Your task to perform on an android device: remove spam from my inbox in the gmail app Image 0: 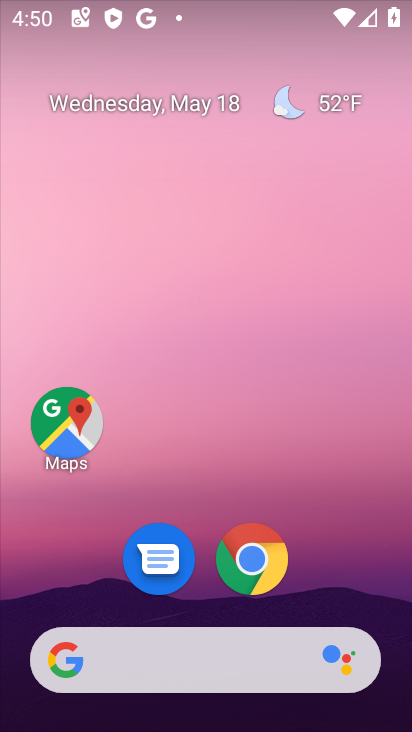
Step 0: drag from (174, 572) to (195, 152)
Your task to perform on an android device: remove spam from my inbox in the gmail app Image 1: 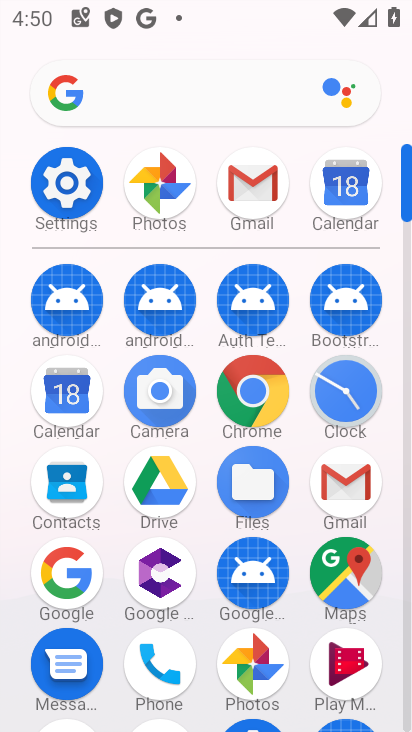
Step 1: click (247, 177)
Your task to perform on an android device: remove spam from my inbox in the gmail app Image 2: 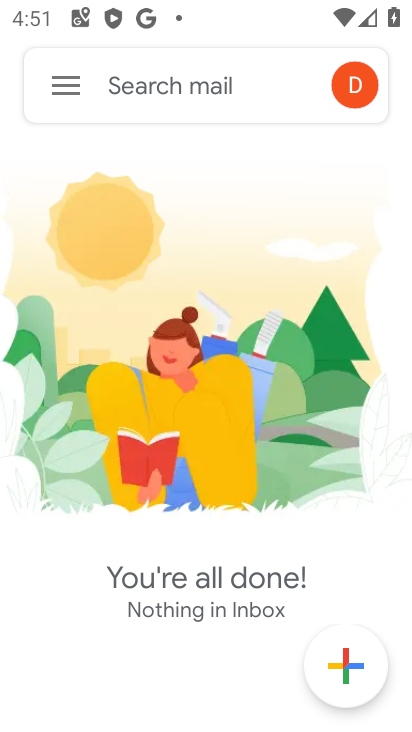
Step 2: click (61, 78)
Your task to perform on an android device: remove spam from my inbox in the gmail app Image 3: 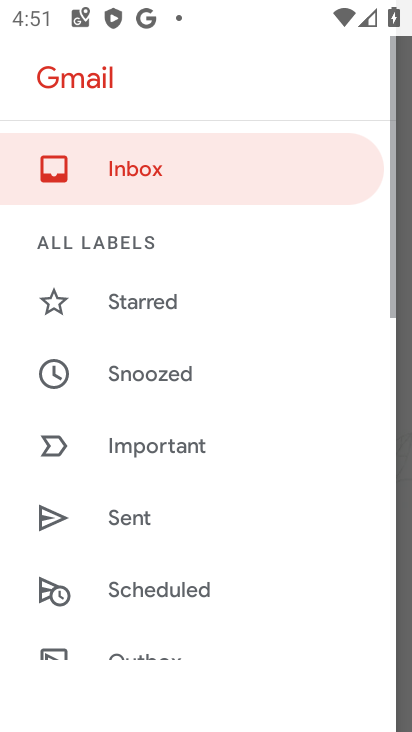
Step 3: drag from (182, 559) to (241, 137)
Your task to perform on an android device: remove spam from my inbox in the gmail app Image 4: 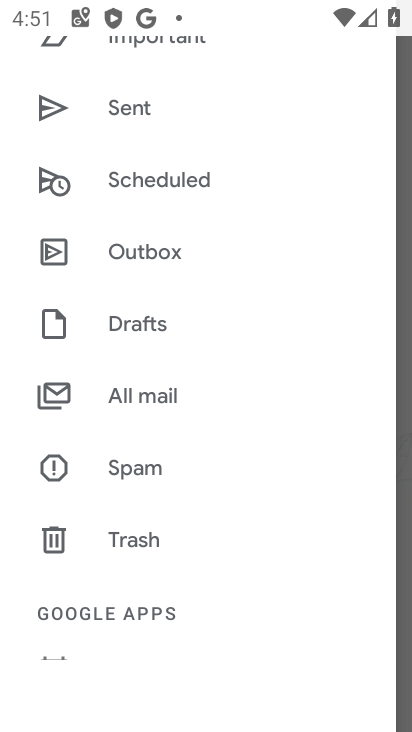
Step 4: click (141, 467)
Your task to perform on an android device: remove spam from my inbox in the gmail app Image 5: 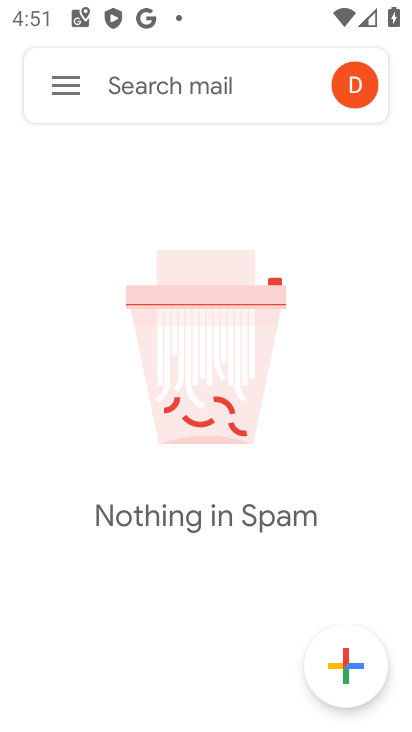
Step 5: task complete